Your task to perform on an android device: Open the stopwatch Image 0: 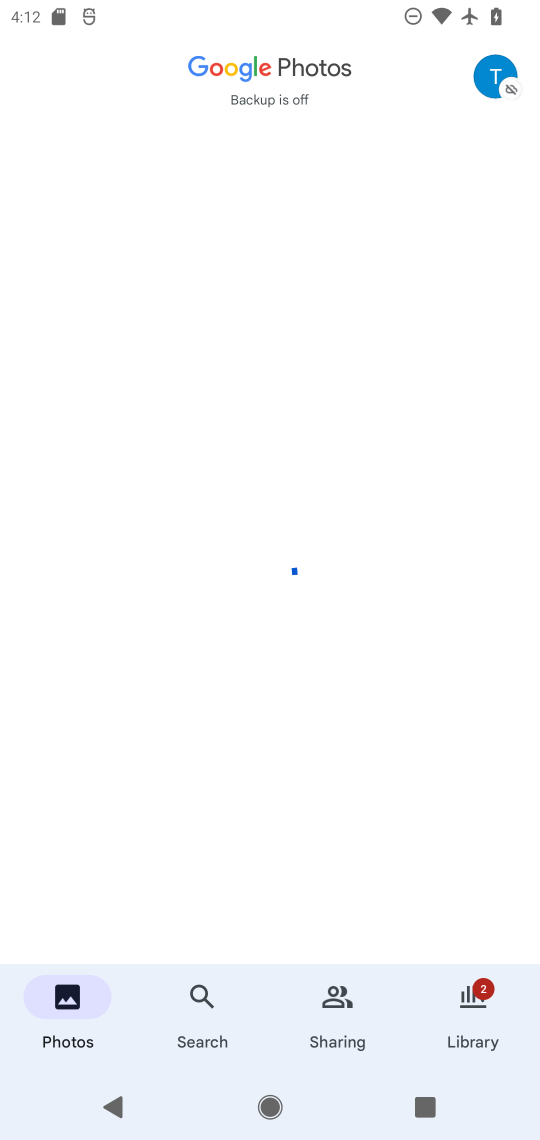
Step 0: press home button
Your task to perform on an android device: Open the stopwatch Image 1: 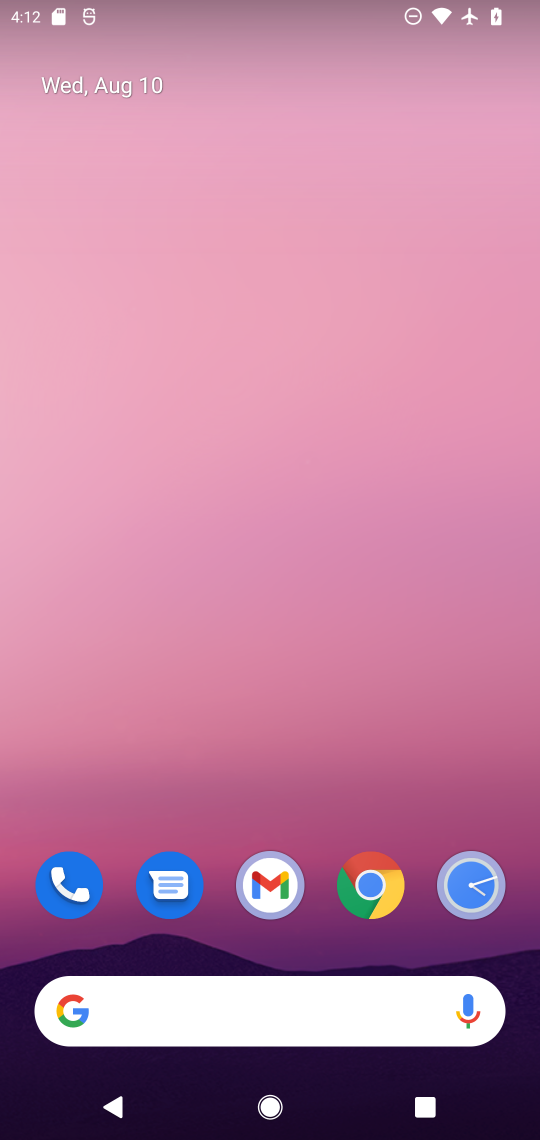
Step 1: click (460, 880)
Your task to perform on an android device: Open the stopwatch Image 2: 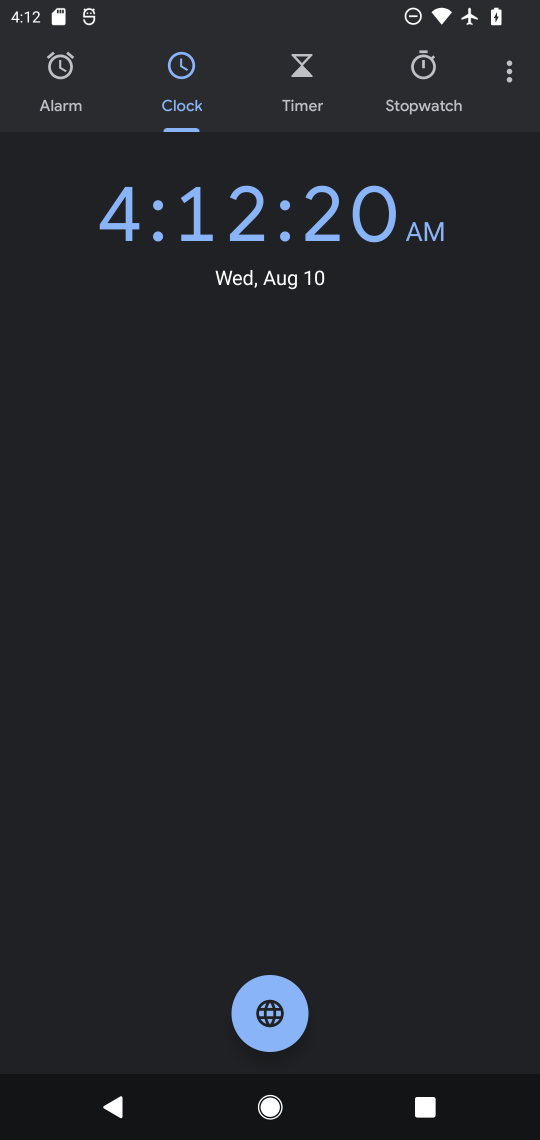
Step 2: click (425, 78)
Your task to perform on an android device: Open the stopwatch Image 3: 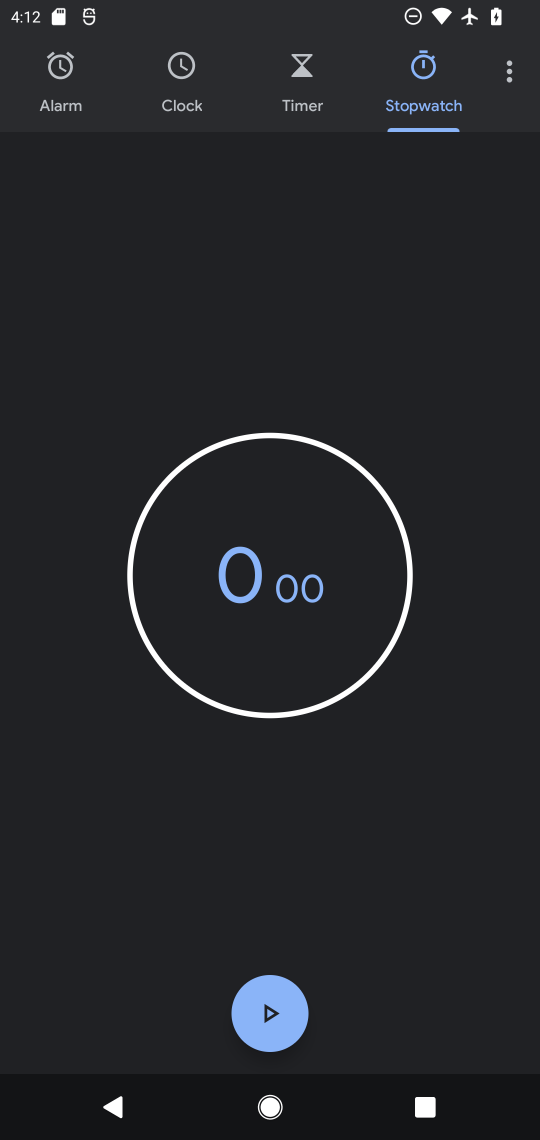
Step 3: task complete